Your task to perform on an android device: Toggle the flashlight Image 0: 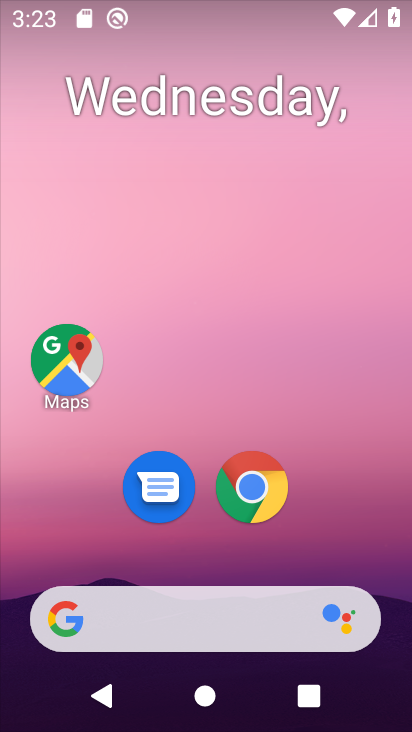
Step 0: drag from (322, 551) to (226, 187)
Your task to perform on an android device: Toggle the flashlight Image 1: 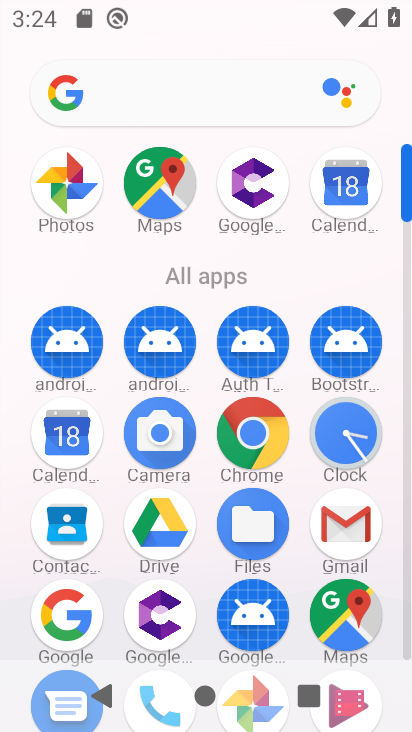
Step 1: drag from (122, 572) to (123, 375)
Your task to perform on an android device: Toggle the flashlight Image 2: 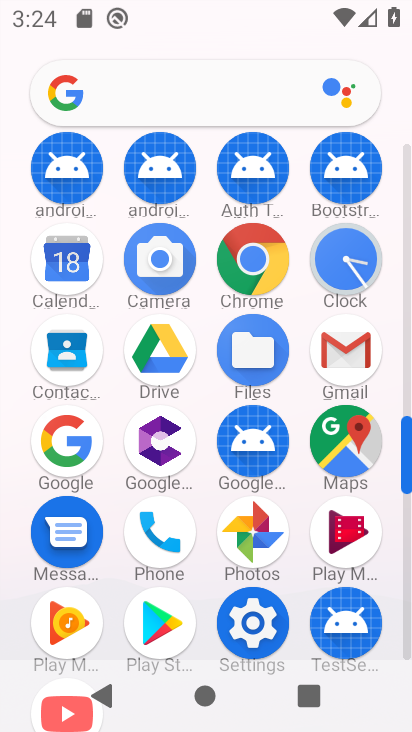
Step 2: click (250, 621)
Your task to perform on an android device: Toggle the flashlight Image 3: 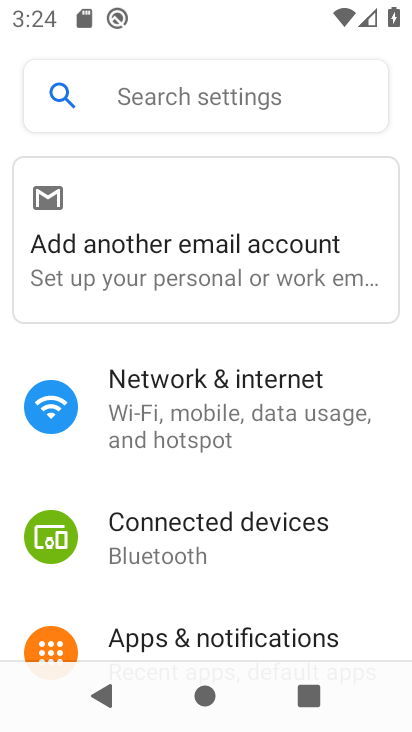
Step 3: drag from (219, 584) to (225, 491)
Your task to perform on an android device: Toggle the flashlight Image 4: 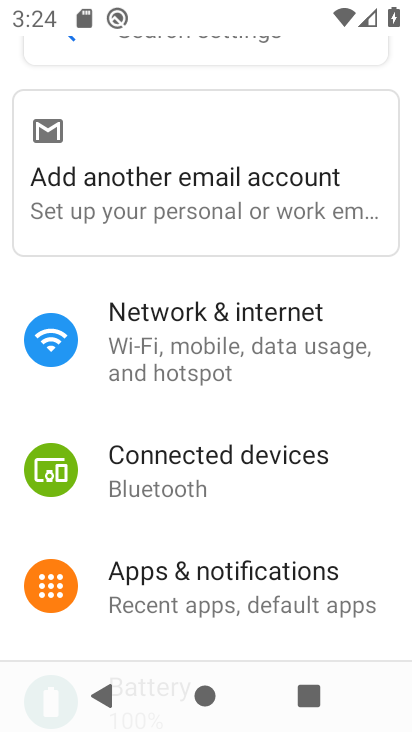
Step 4: drag from (236, 549) to (254, 477)
Your task to perform on an android device: Toggle the flashlight Image 5: 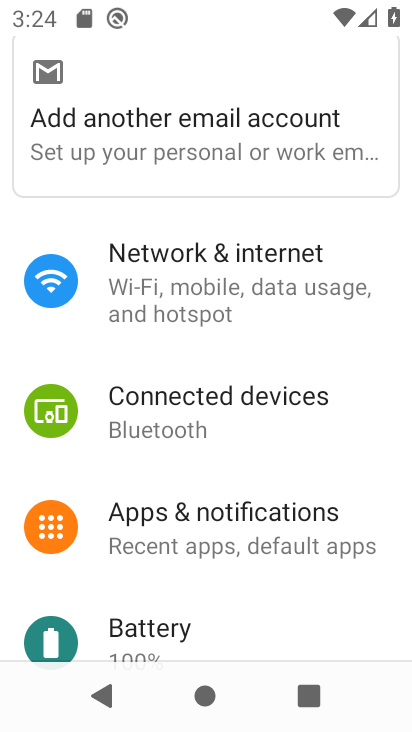
Step 5: drag from (220, 565) to (221, 461)
Your task to perform on an android device: Toggle the flashlight Image 6: 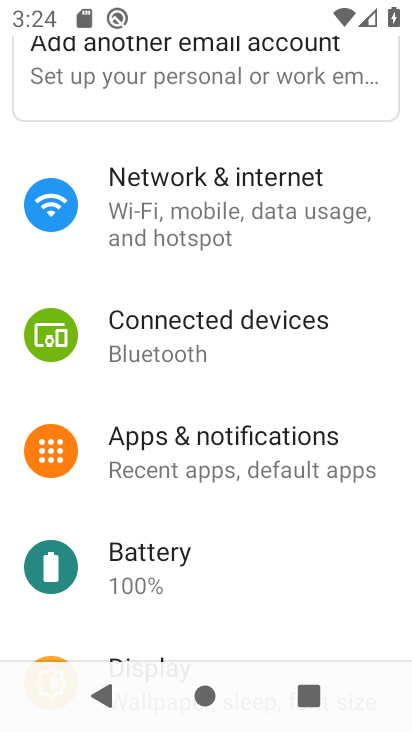
Step 6: drag from (199, 494) to (261, 373)
Your task to perform on an android device: Toggle the flashlight Image 7: 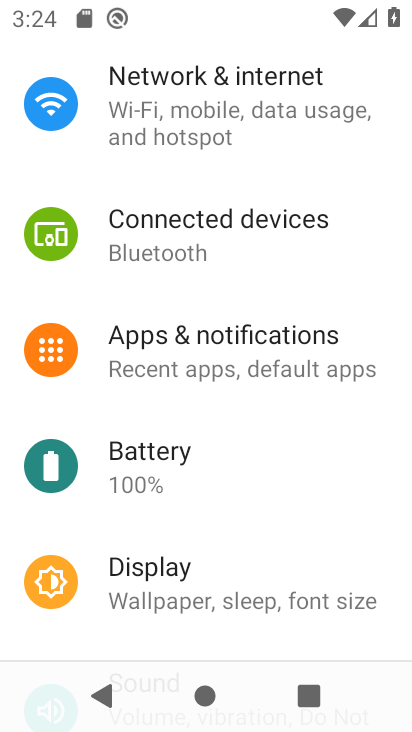
Step 7: drag from (246, 443) to (249, 319)
Your task to perform on an android device: Toggle the flashlight Image 8: 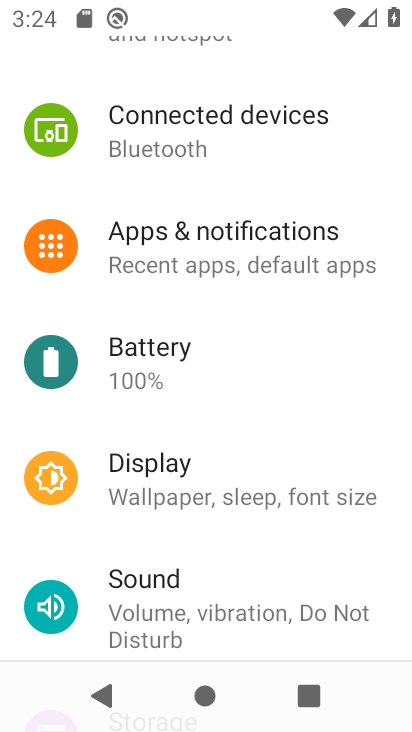
Step 8: drag from (225, 440) to (242, 353)
Your task to perform on an android device: Toggle the flashlight Image 9: 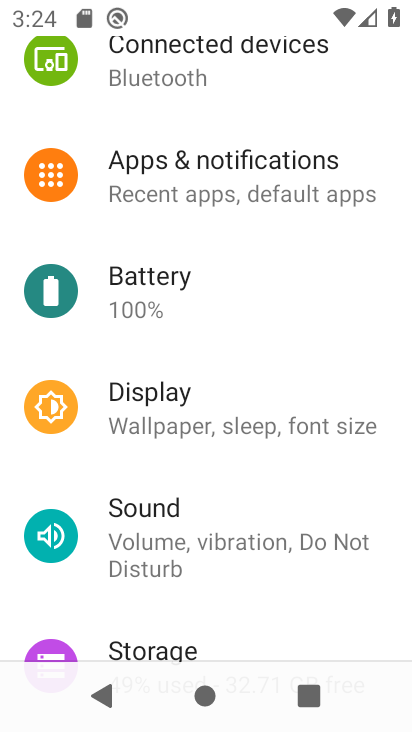
Step 9: drag from (224, 182) to (171, 460)
Your task to perform on an android device: Toggle the flashlight Image 10: 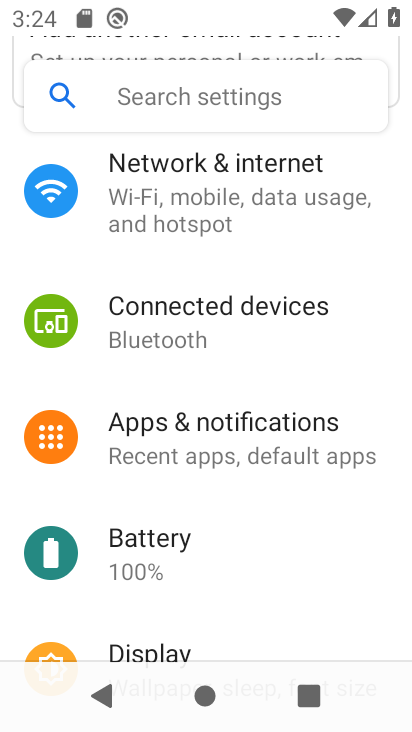
Step 10: click (202, 112)
Your task to perform on an android device: Toggle the flashlight Image 11: 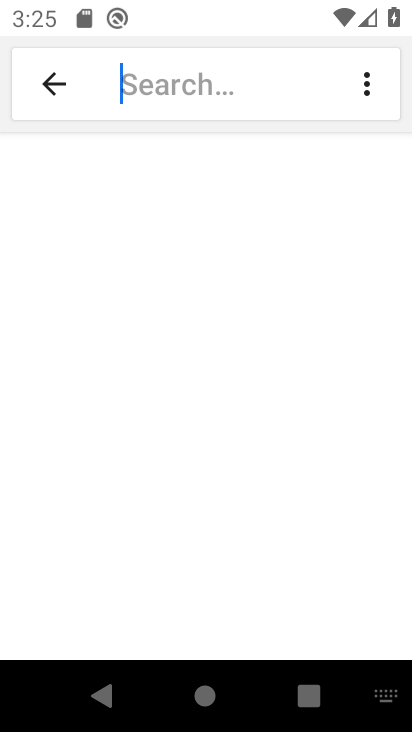
Step 11: type "flashlight"
Your task to perform on an android device: Toggle the flashlight Image 12: 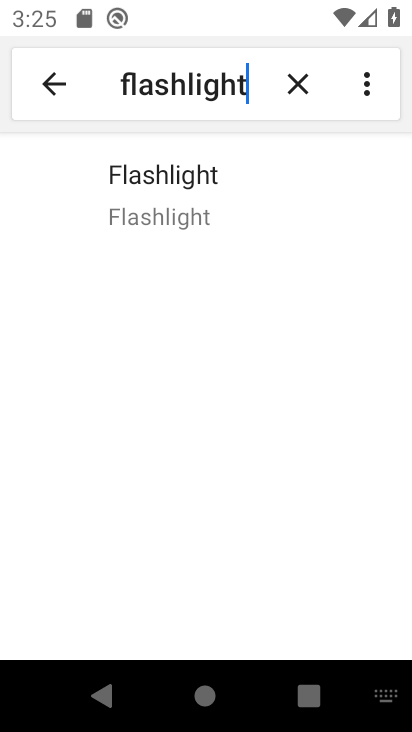
Step 12: click (210, 183)
Your task to perform on an android device: Toggle the flashlight Image 13: 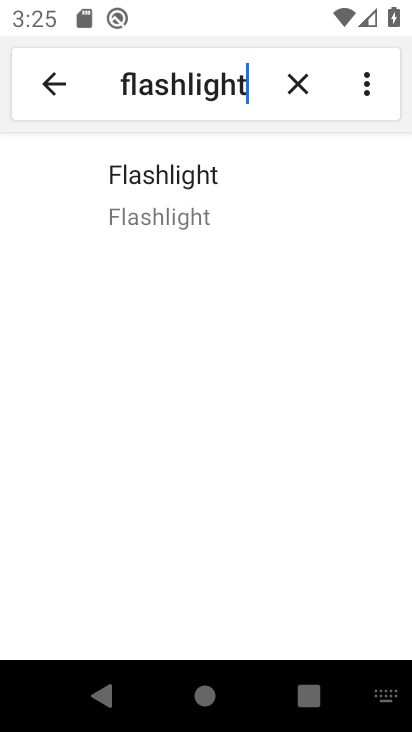
Step 13: click (210, 183)
Your task to perform on an android device: Toggle the flashlight Image 14: 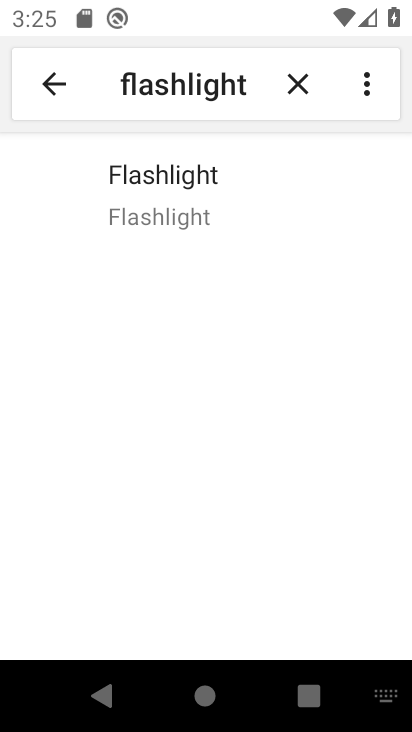
Step 14: click (210, 183)
Your task to perform on an android device: Toggle the flashlight Image 15: 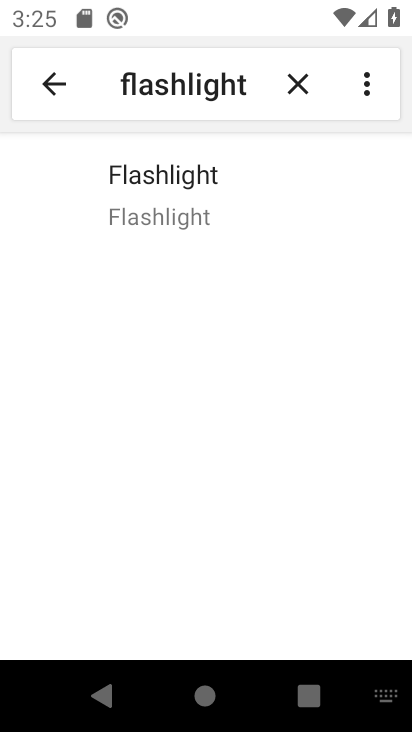
Step 15: click (298, 76)
Your task to perform on an android device: Toggle the flashlight Image 16: 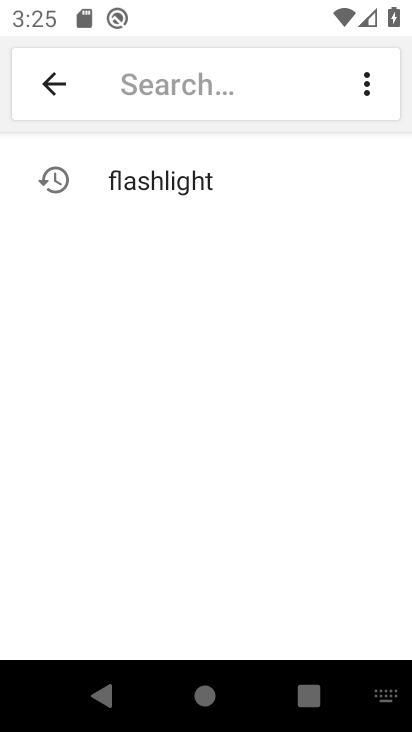
Step 16: click (151, 183)
Your task to perform on an android device: Toggle the flashlight Image 17: 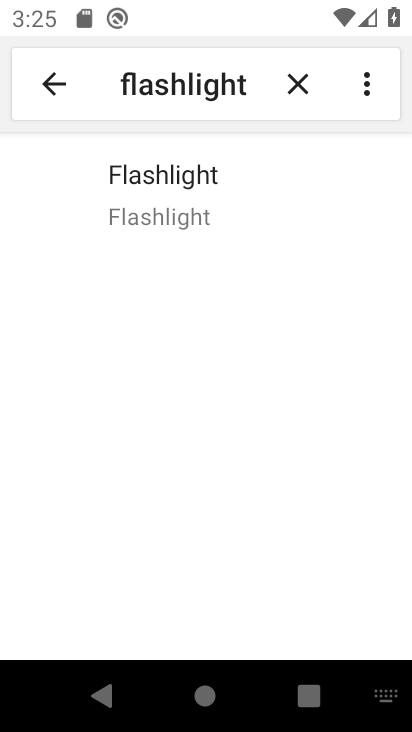
Step 17: task complete